Your task to perform on an android device: When is my next meeting? Image 0: 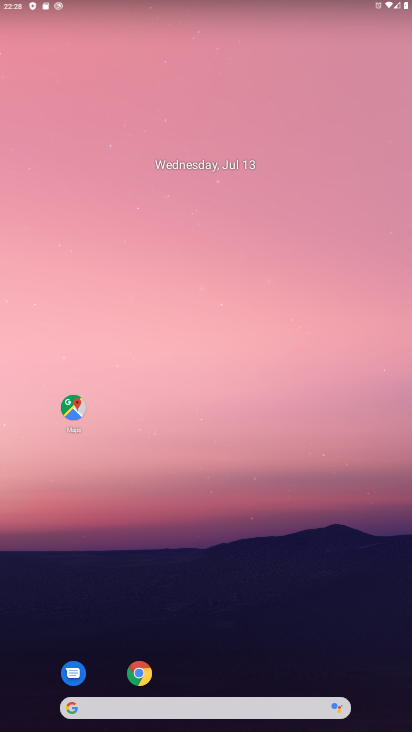
Step 0: drag from (251, 666) to (318, 62)
Your task to perform on an android device: When is my next meeting? Image 1: 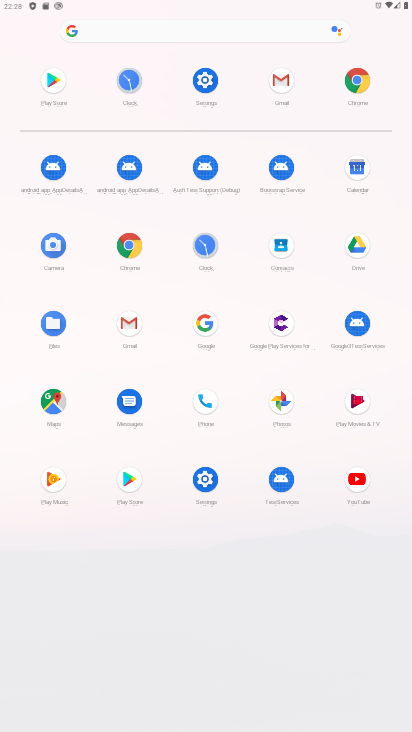
Step 1: click (355, 168)
Your task to perform on an android device: When is my next meeting? Image 2: 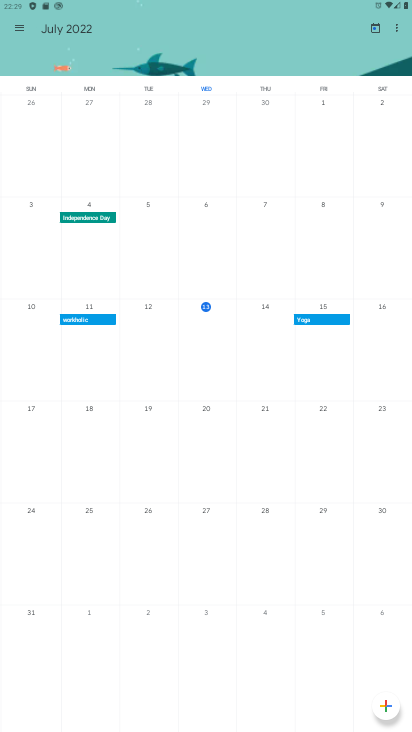
Step 2: click (253, 314)
Your task to perform on an android device: When is my next meeting? Image 3: 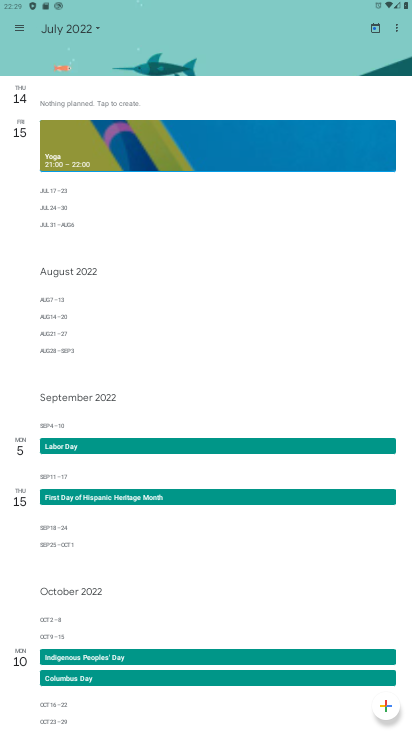
Step 3: task complete